Your task to perform on an android device: turn off notifications settings in the gmail app Image 0: 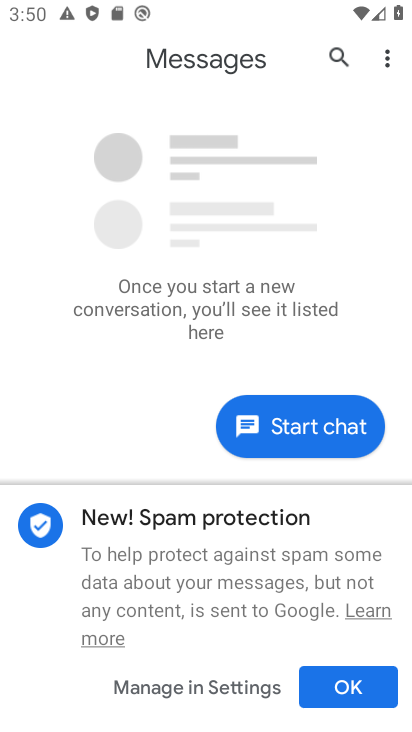
Step 0: press home button
Your task to perform on an android device: turn off notifications settings in the gmail app Image 1: 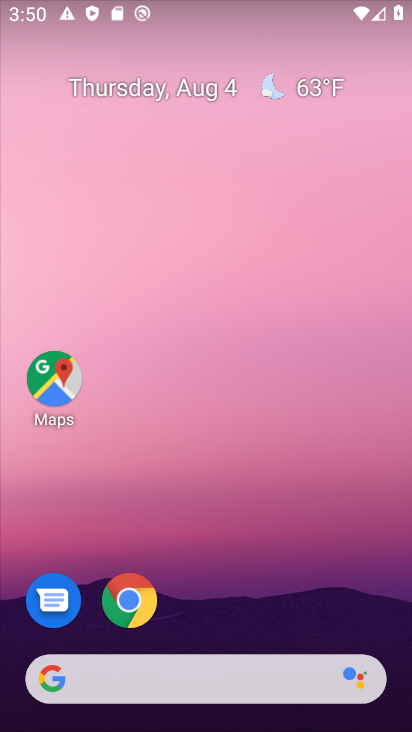
Step 1: drag from (266, 602) to (234, 97)
Your task to perform on an android device: turn off notifications settings in the gmail app Image 2: 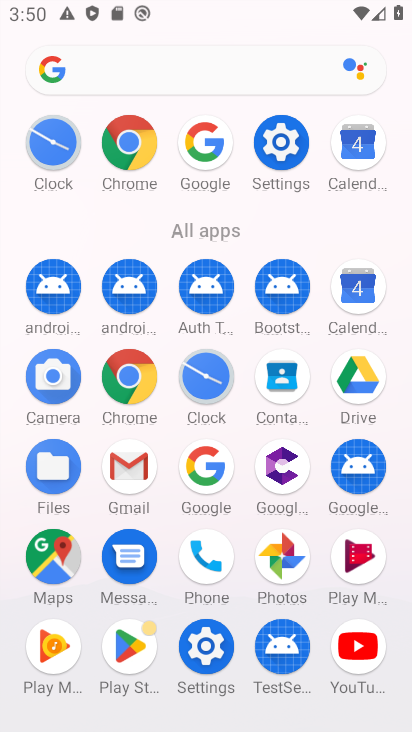
Step 2: click (125, 462)
Your task to perform on an android device: turn off notifications settings in the gmail app Image 3: 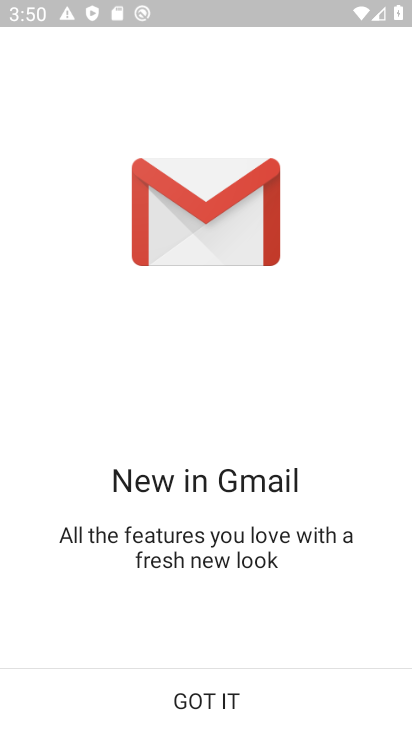
Step 3: click (207, 701)
Your task to perform on an android device: turn off notifications settings in the gmail app Image 4: 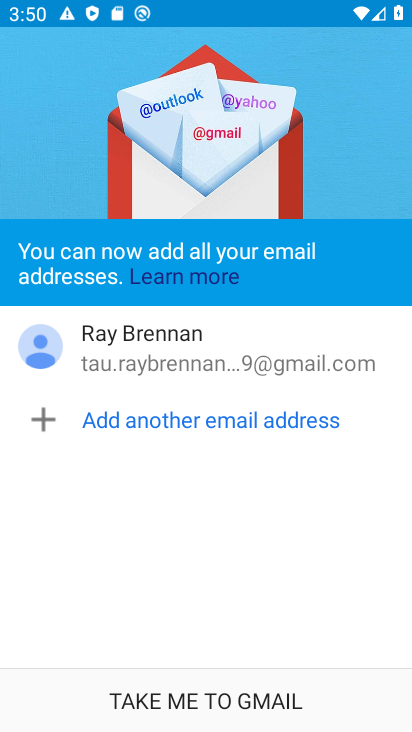
Step 4: click (212, 718)
Your task to perform on an android device: turn off notifications settings in the gmail app Image 5: 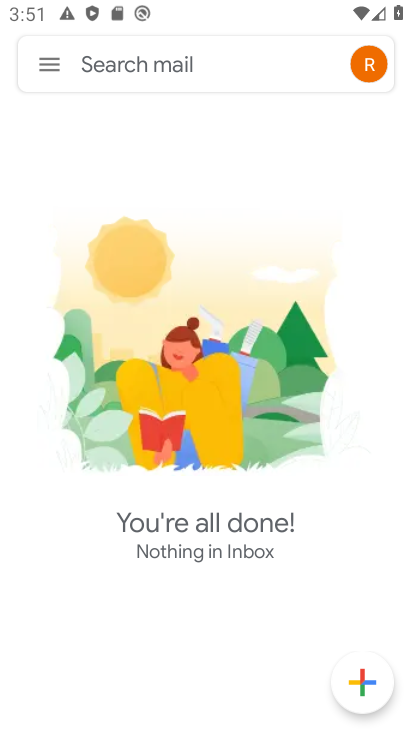
Step 5: click (53, 60)
Your task to perform on an android device: turn off notifications settings in the gmail app Image 6: 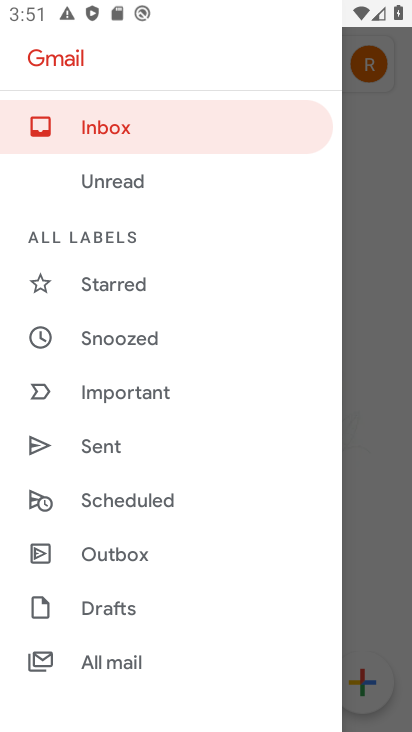
Step 6: drag from (135, 663) to (213, 211)
Your task to perform on an android device: turn off notifications settings in the gmail app Image 7: 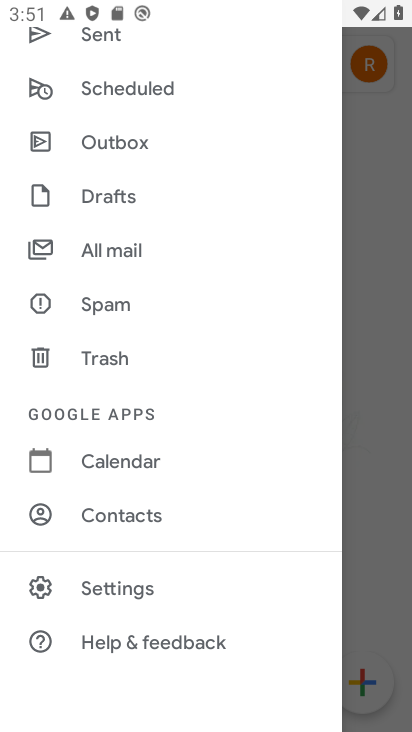
Step 7: click (128, 601)
Your task to perform on an android device: turn off notifications settings in the gmail app Image 8: 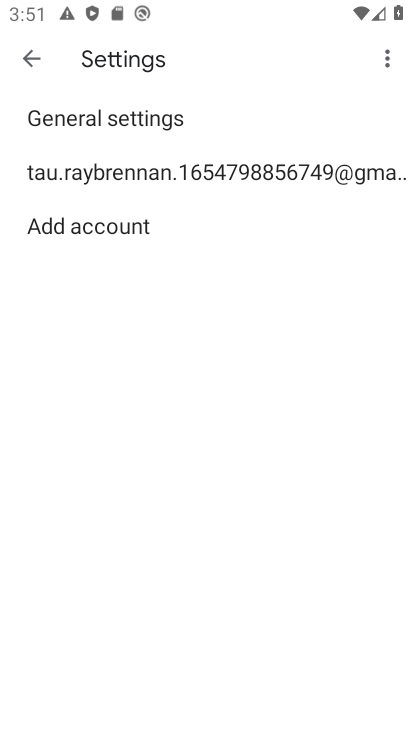
Step 8: click (243, 177)
Your task to perform on an android device: turn off notifications settings in the gmail app Image 9: 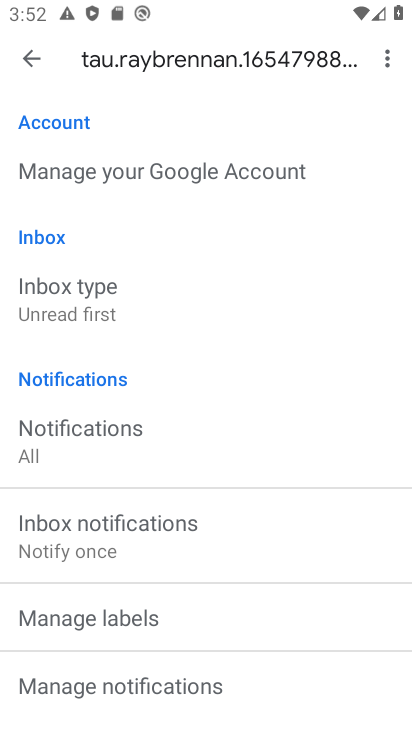
Step 9: click (178, 686)
Your task to perform on an android device: turn off notifications settings in the gmail app Image 10: 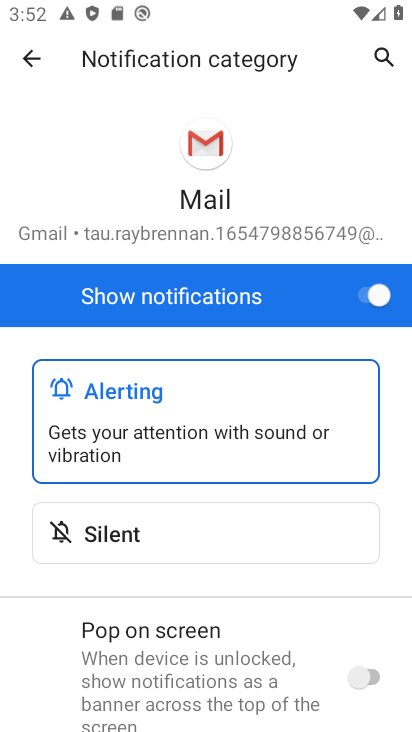
Step 10: click (367, 313)
Your task to perform on an android device: turn off notifications settings in the gmail app Image 11: 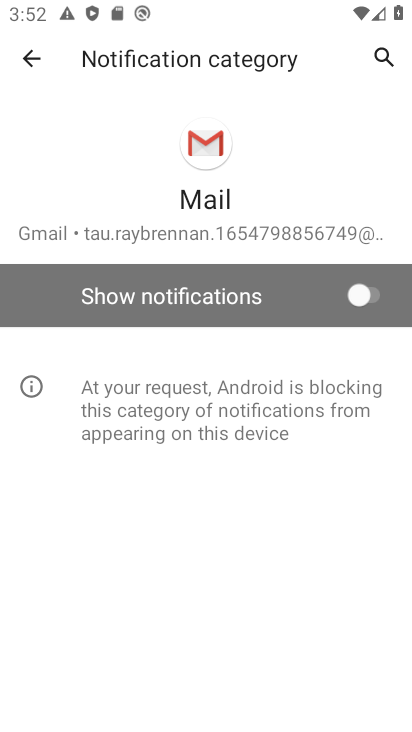
Step 11: task complete